Your task to perform on an android device: change the clock display to show seconds Image 0: 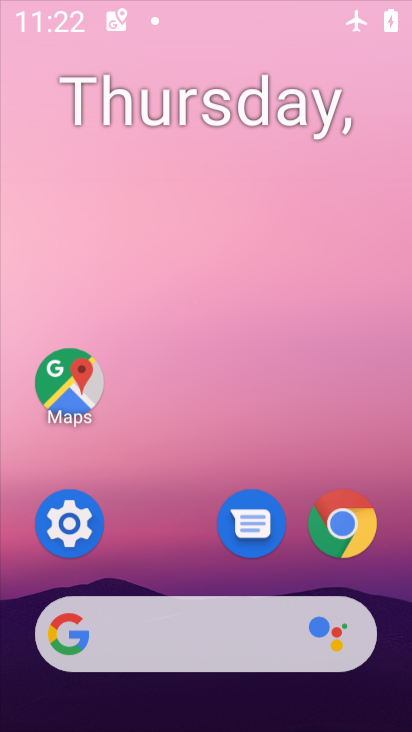
Step 0: drag from (156, 313) to (199, 34)
Your task to perform on an android device: change the clock display to show seconds Image 1: 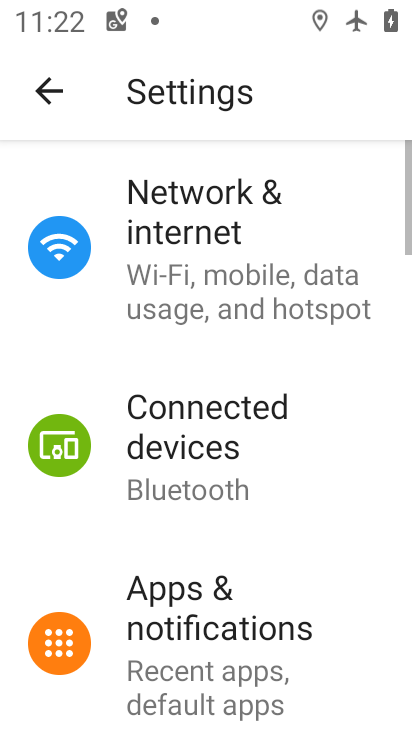
Step 1: drag from (341, 394) to (299, 74)
Your task to perform on an android device: change the clock display to show seconds Image 2: 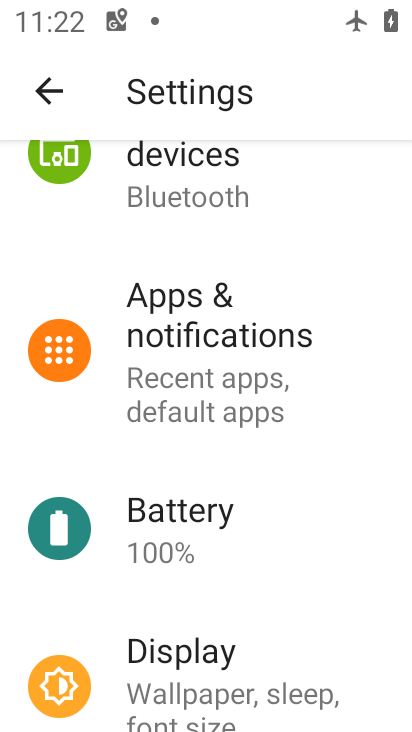
Step 2: press home button
Your task to perform on an android device: change the clock display to show seconds Image 3: 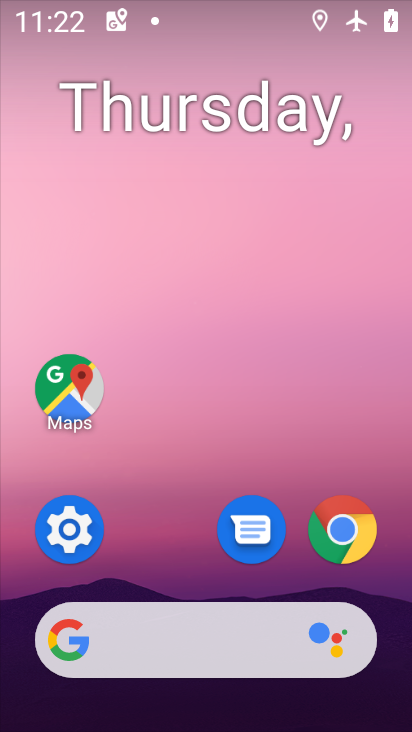
Step 3: drag from (235, 571) to (249, 60)
Your task to perform on an android device: change the clock display to show seconds Image 4: 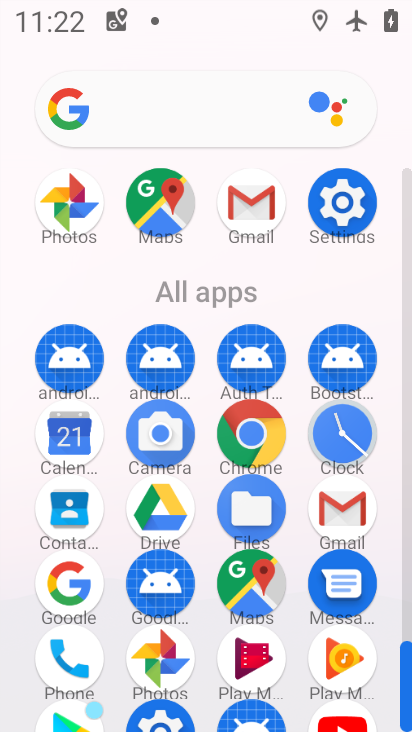
Step 4: click (357, 447)
Your task to perform on an android device: change the clock display to show seconds Image 5: 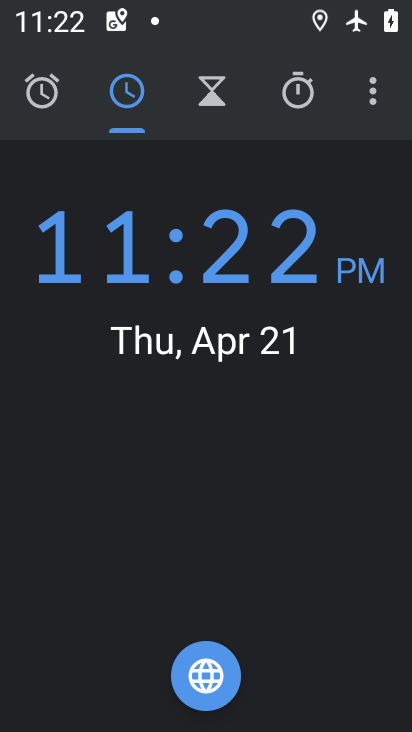
Step 5: click (375, 78)
Your task to perform on an android device: change the clock display to show seconds Image 6: 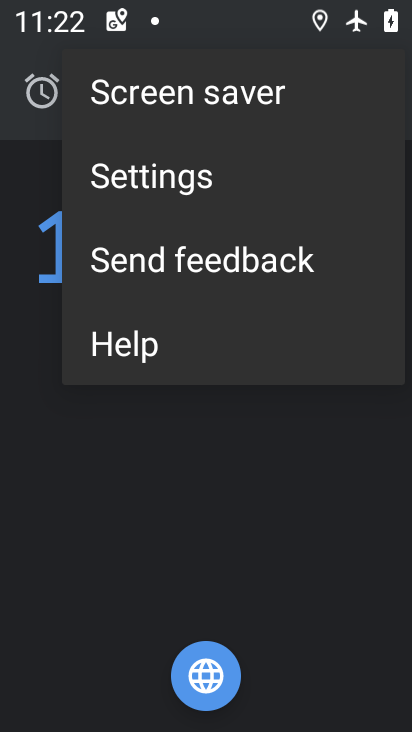
Step 6: click (236, 192)
Your task to perform on an android device: change the clock display to show seconds Image 7: 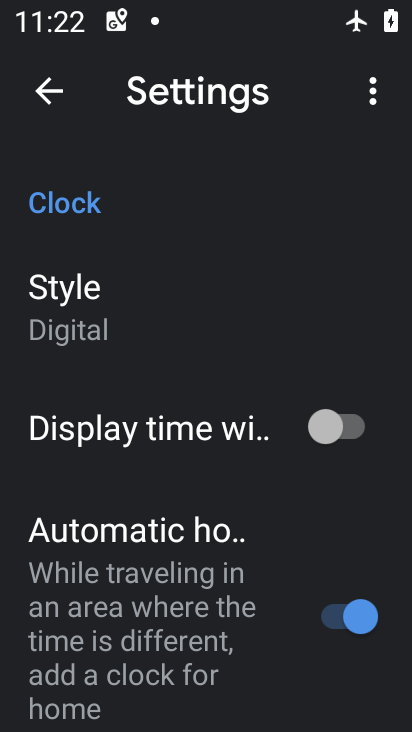
Step 7: click (333, 427)
Your task to perform on an android device: change the clock display to show seconds Image 8: 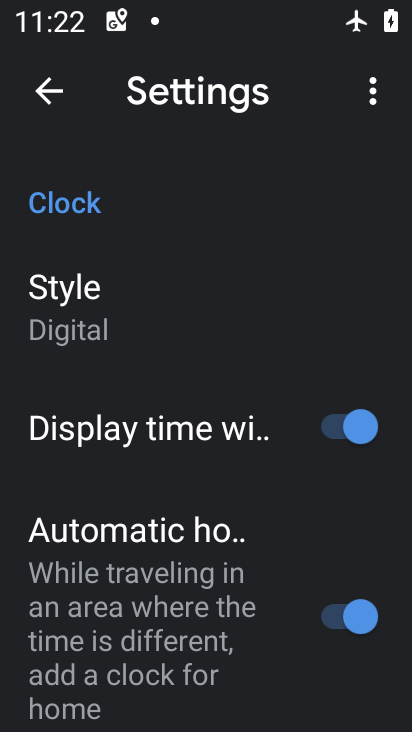
Step 8: task complete